Your task to perform on an android device: Add jbl charge 4 to the cart on walmart, then select checkout. Image 0: 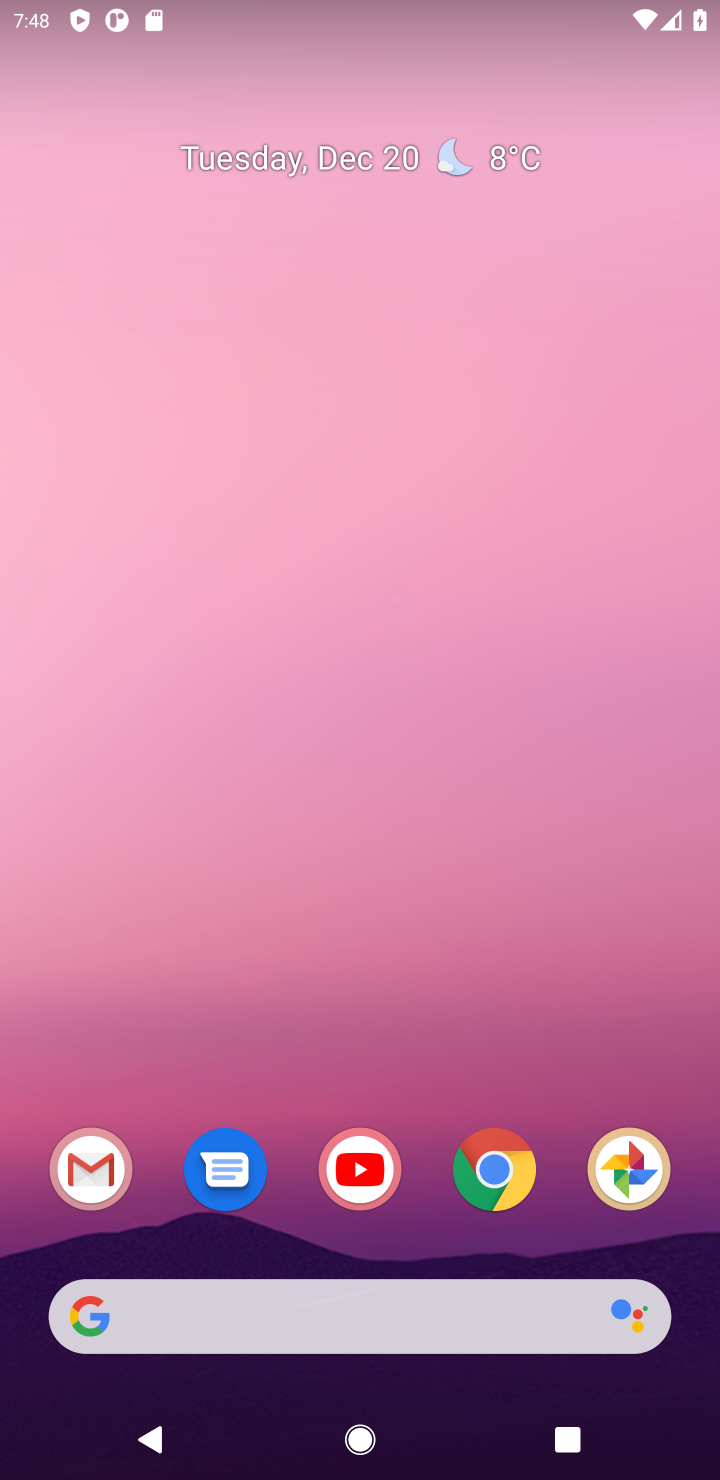
Step 0: click (469, 1191)
Your task to perform on an android device: Add jbl charge 4 to the cart on walmart, then select checkout. Image 1: 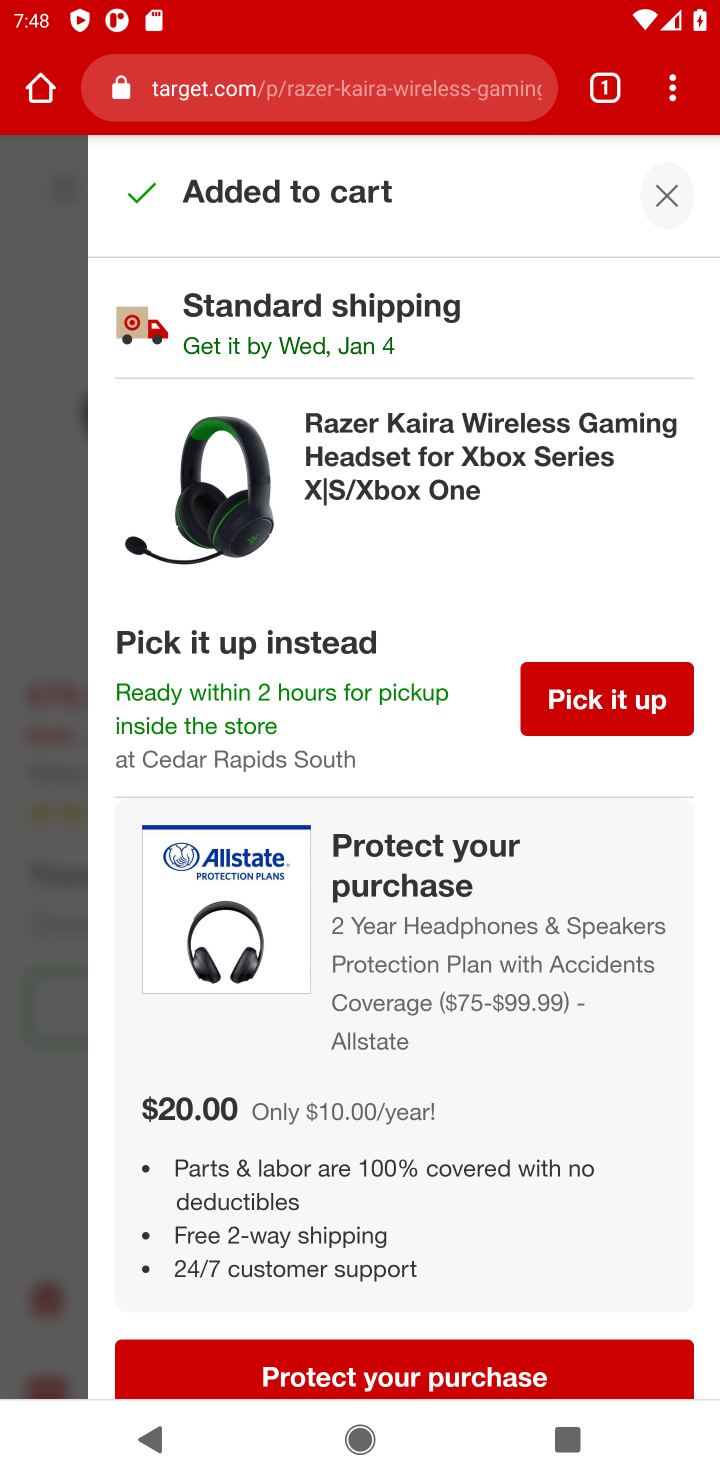
Step 1: click (323, 70)
Your task to perform on an android device: Add jbl charge 4 to the cart on walmart, then select checkout. Image 2: 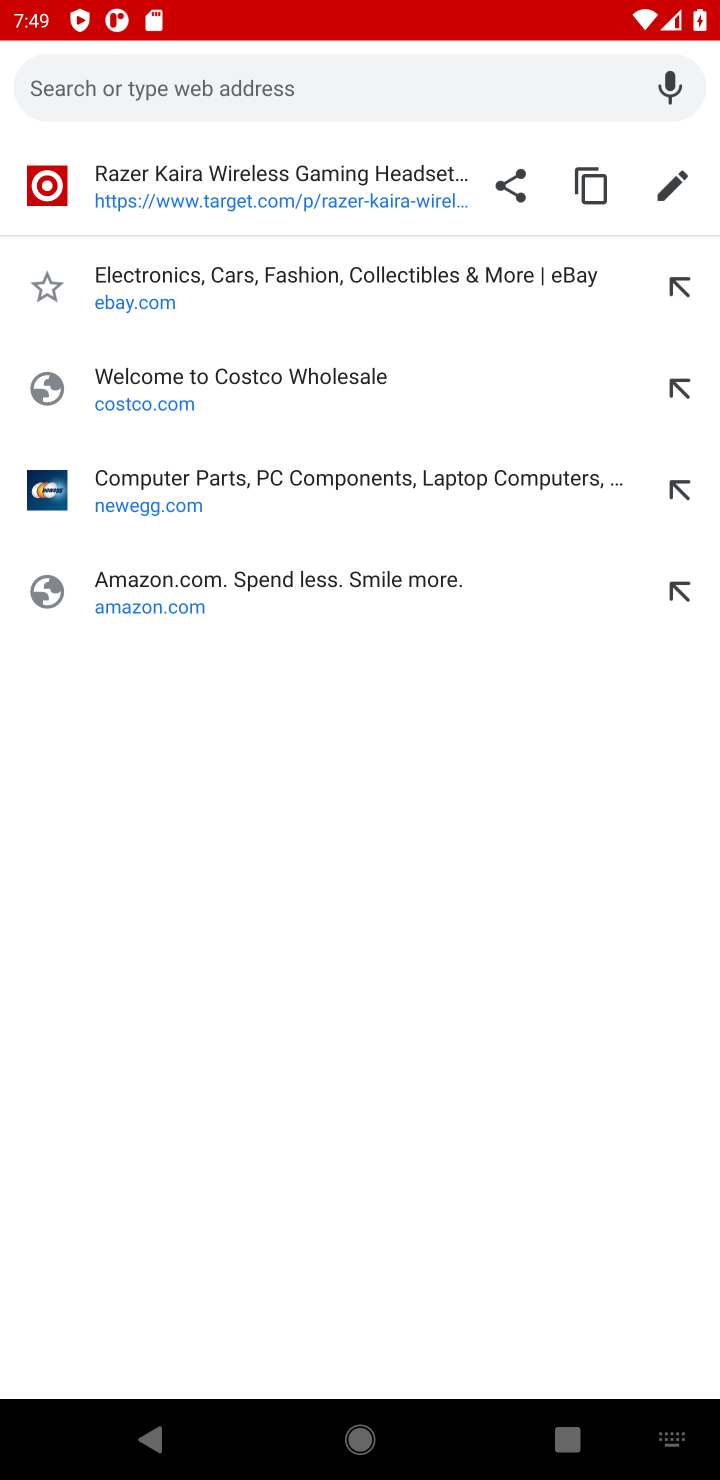
Step 2: type "walmart"
Your task to perform on an android device: Add jbl charge 4 to the cart on walmart, then select checkout. Image 3: 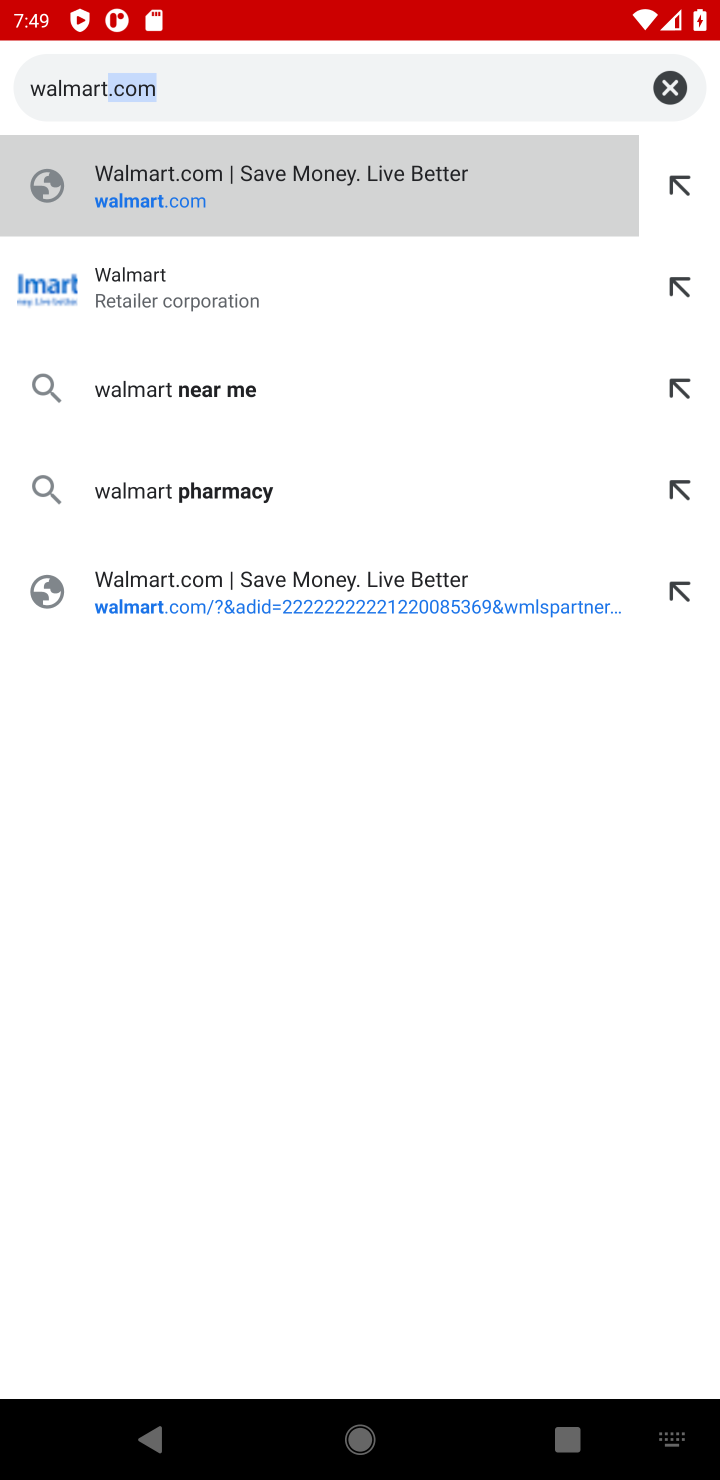
Step 3: click (326, 201)
Your task to perform on an android device: Add jbl charge 4 to the cart on walmart, then select checkout. Image 4: 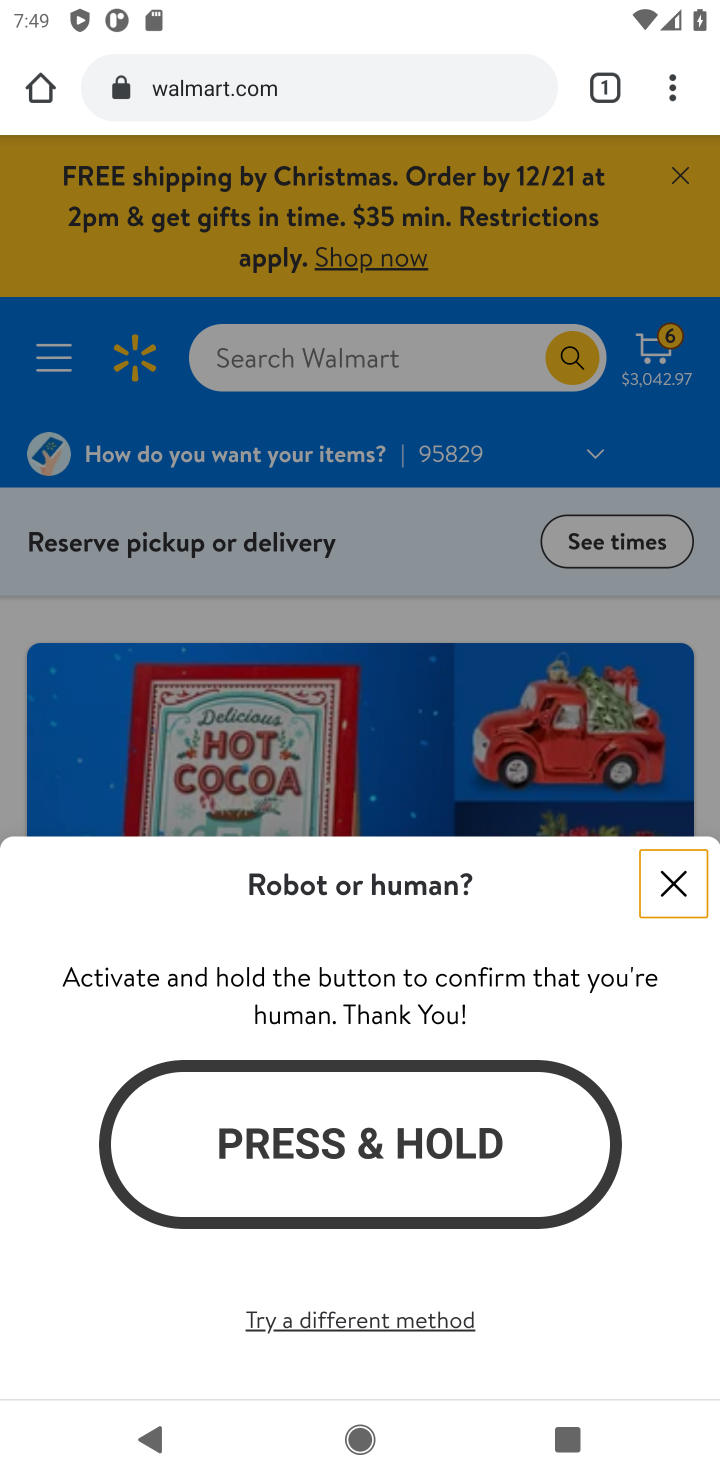
Step 4: task complete